Your task to perform on an android device: all mails in gmail Image 0: 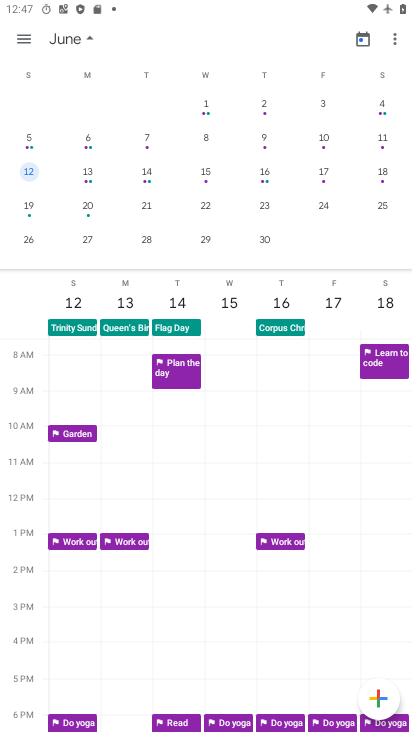
Step 0: press home button
Your task to perform on an android device: all mails in gmail Image 1: 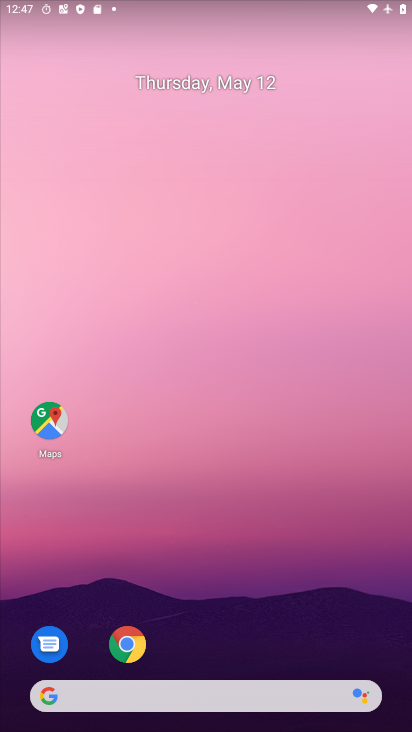
Step 1: drag from (224, 520) to (213, 35)
Your task to perform on an android device: all mails in gmail Image 2: 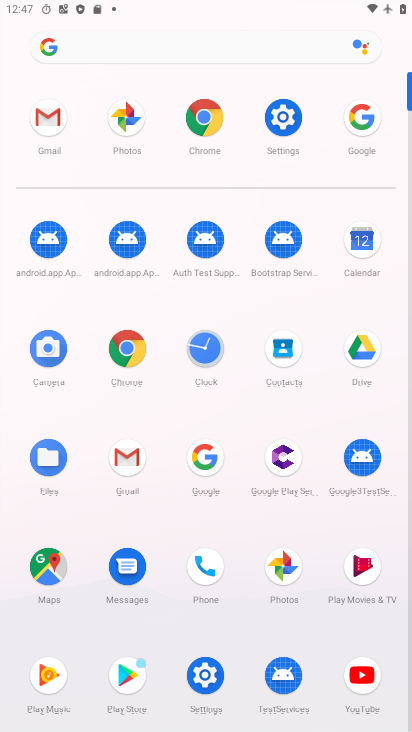
Step 2: click (60, 120)
Your task to perform on an android device: all mails in gmail Image 3: 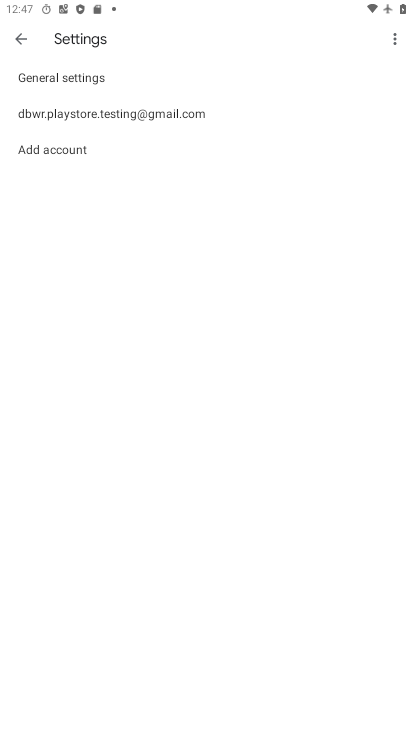
Step 3: click (12, 34)
Your task to perform on an android device: all mails in gmail Image 4: 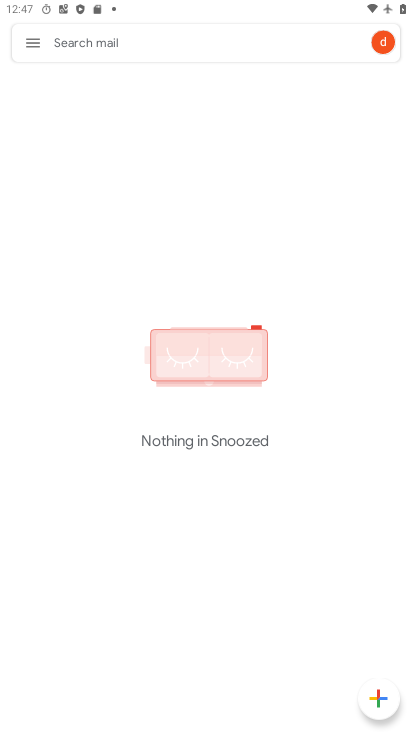
Step 4: click (33, 47)
Your task to perform on an android device: all mails in gmail Image 5: 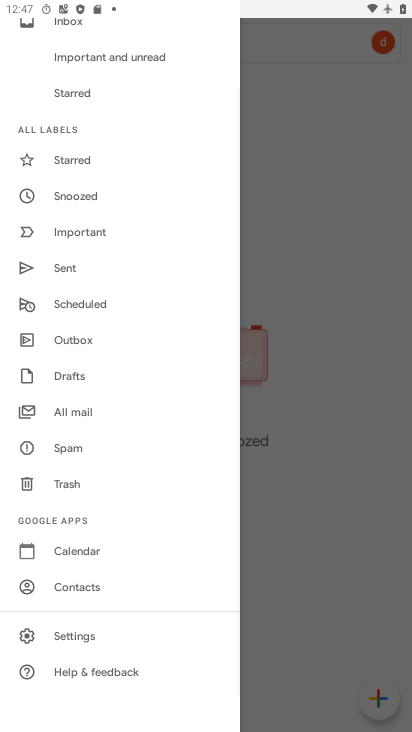
Step 5: click (87, 418)
Your task to perform on an android device: all mails in gmail Image 6: 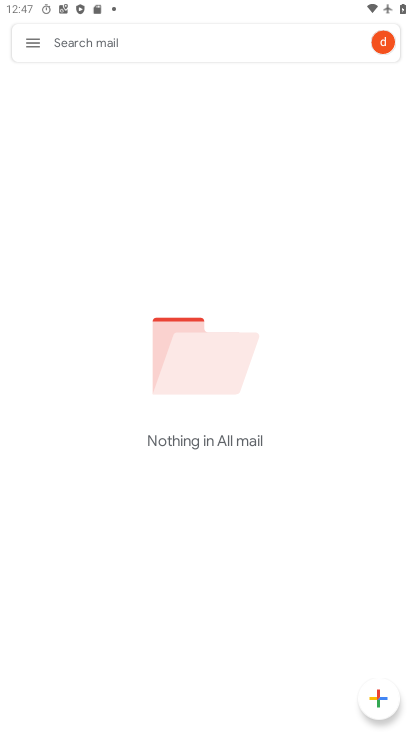
Step 6: task complete